Your task to perform on an android device: Show me popular videos on Youtube Image 0: 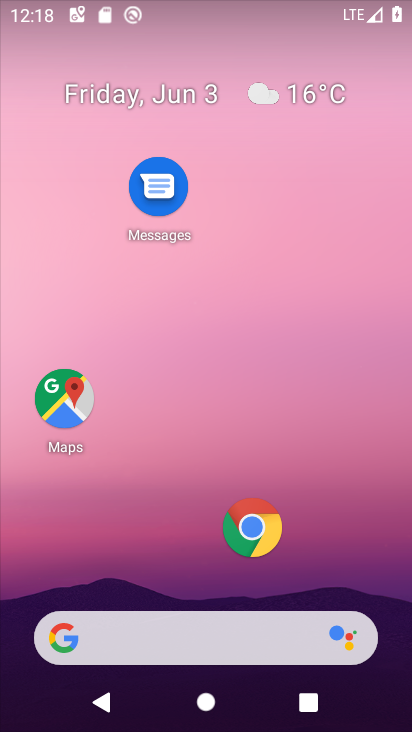
Step 0: press home button
Your task to perform on an android device: Show me popular videos on Youtube Image 1: 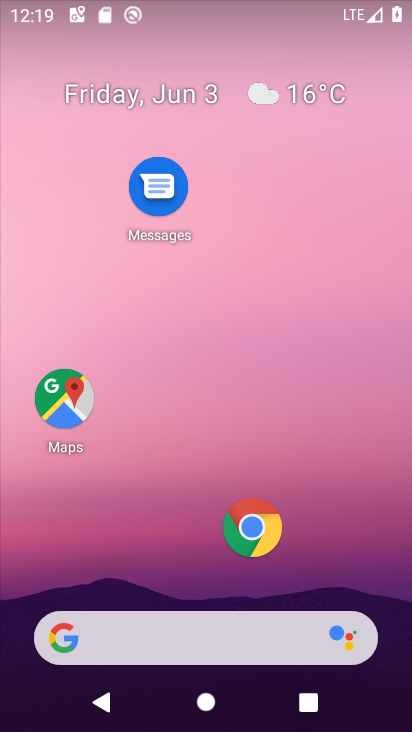
Step 1: drag from (215, 576) to (260, 166)
Your task to perform on an android device: Show me popular videos on Youtube Image 2: 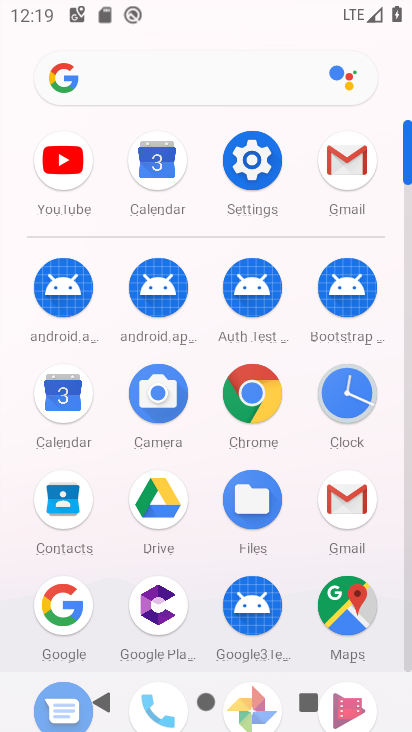
Step 2: drag from (209, 615) to (224, 90)
Your task to perform on an android device: Show me popular videos on Youtube Image 3: 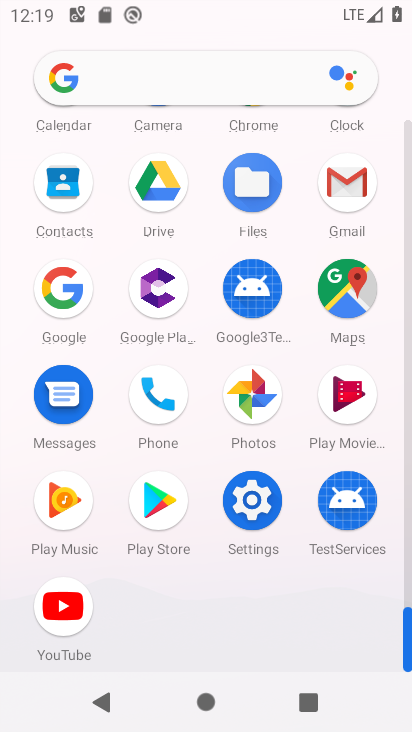
Step 3: click (61, 596)
Your task to perform on an android device: Show me popular videos on Youtube Image 4: 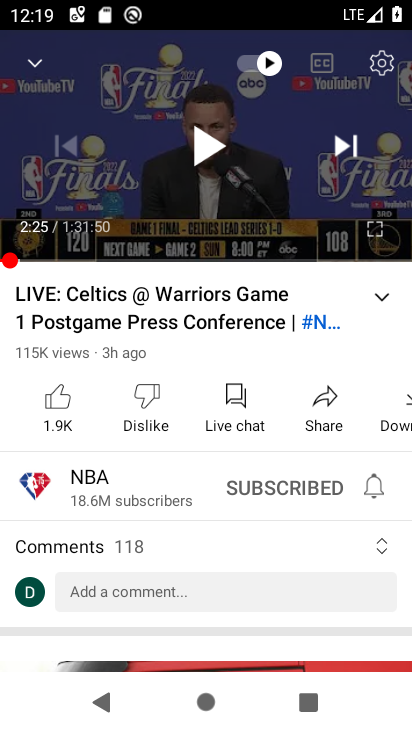
Step 4: press back button
Your task to perform on an android device: Show me popular videos on Youtube Image 5: 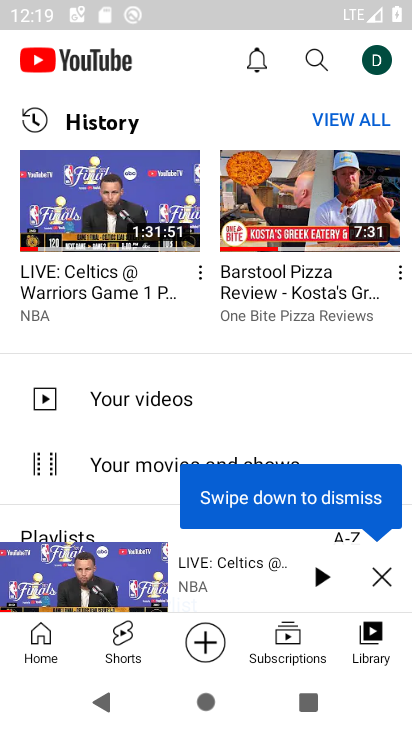
Step 5: click (380, 573)
Your task to perform on an android device: Show me popular videos on Youtube Image 6: 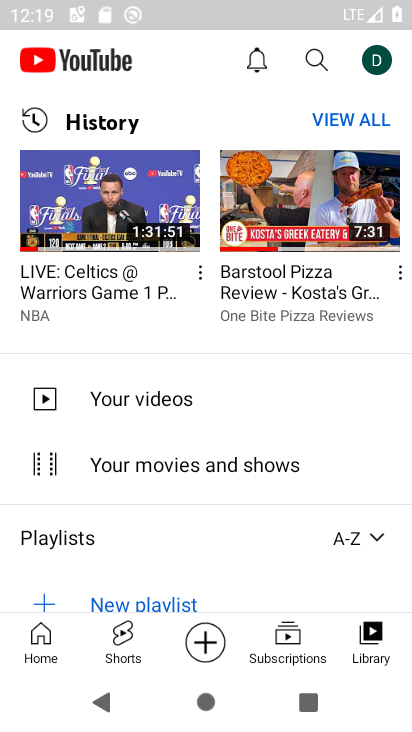
Step 6: click (38, 629)
Your task to perform on an android device: Show me popular videos on Youtube Image 7: 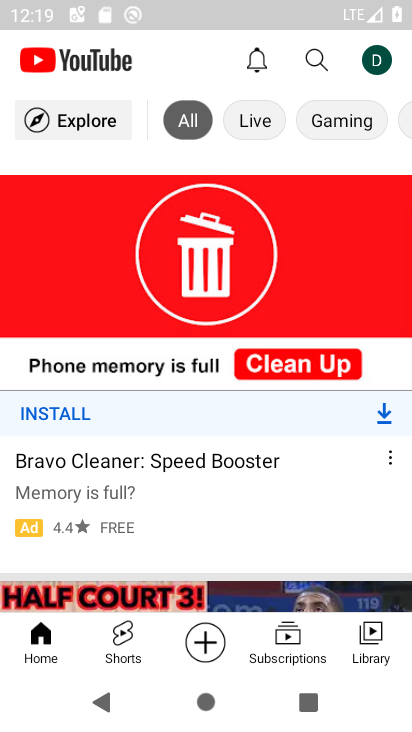
Step 7: click (83, 116)
Your task to perform on an android device: Show me popular videos on Youtube Image 8: 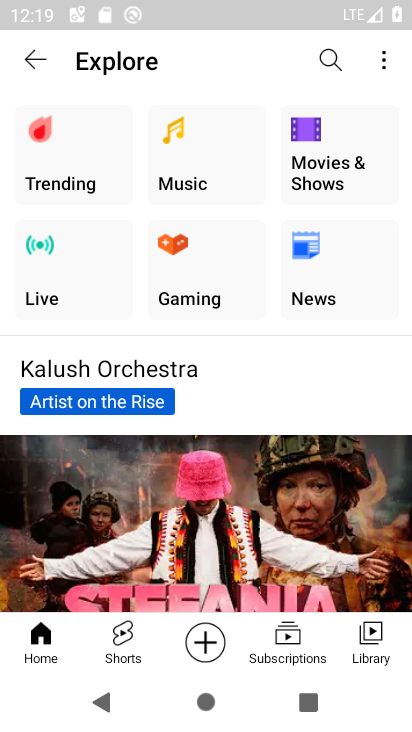
Step 8: click (56, 157)
Your task to perform on an android device: Show me popular videos on Youtube Image 9: 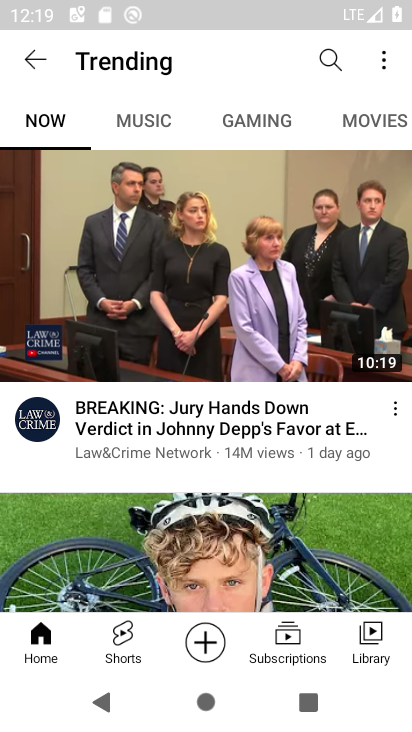
Step 9: task complete